Your task to perform on an android device: delete a single message in the gmail app Image 0: 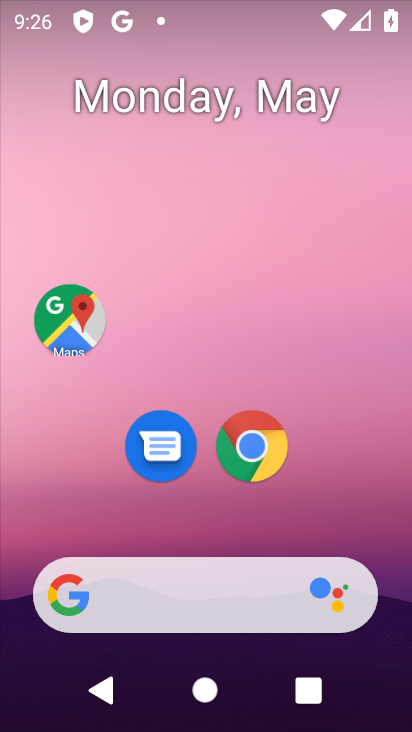
Step 0: drag from (49, 556) to (160, 102)
Your task to perform on an android device: delete a single message in the gmail app Image 1: 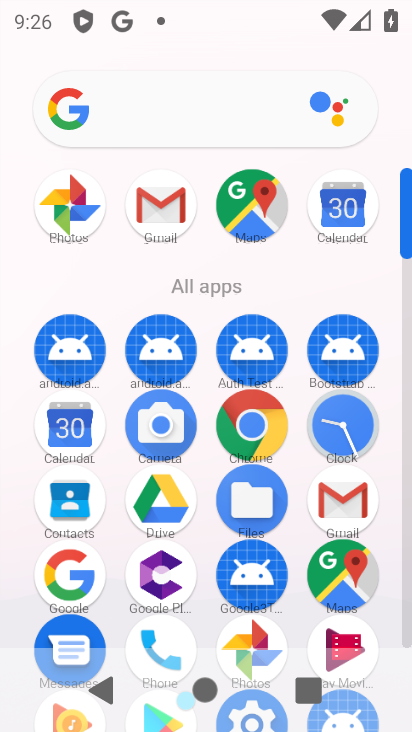
Step 1: click (340, 498)
Your task to perform on an android device: delete a single message in the gmail app Image 2: 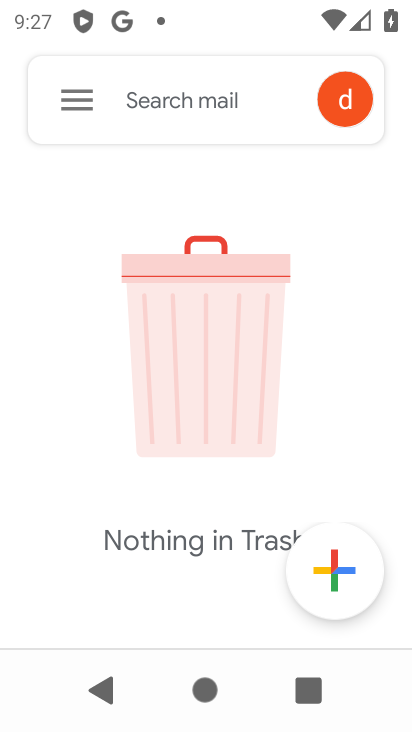
Step 2: click (88, 109)
Your task to perform on an android device: delete a single message in the gmail app Image 3: 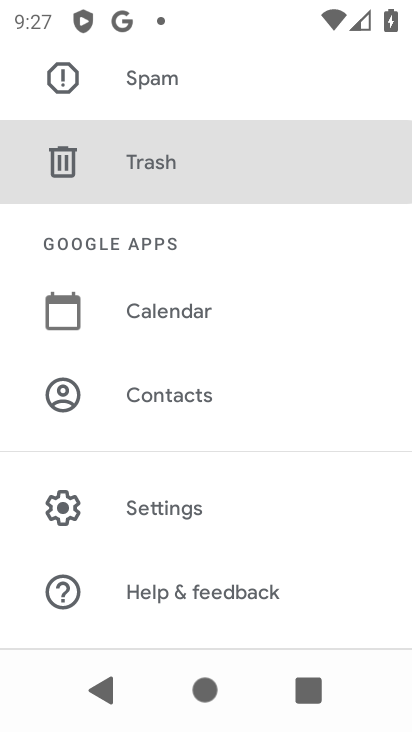
Step 3: drag from (165, 577) to (220, 550)
Your task to perform on an android device: delete a single message in the gmail app Image 4: 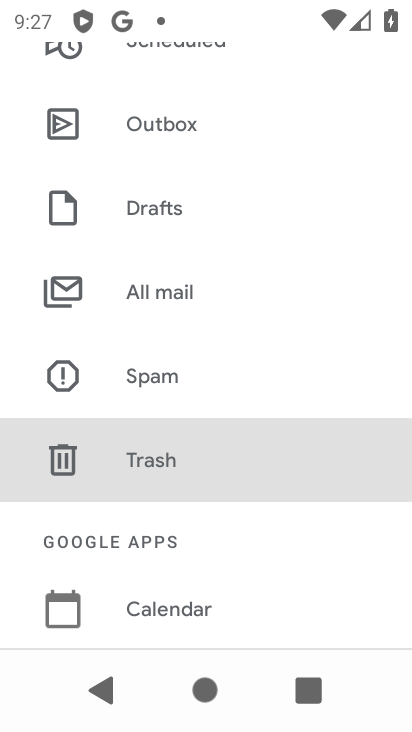
Step 4: click (200, 292)
Your task to perform on an android device: delete a single message in the gmail app Image 5: 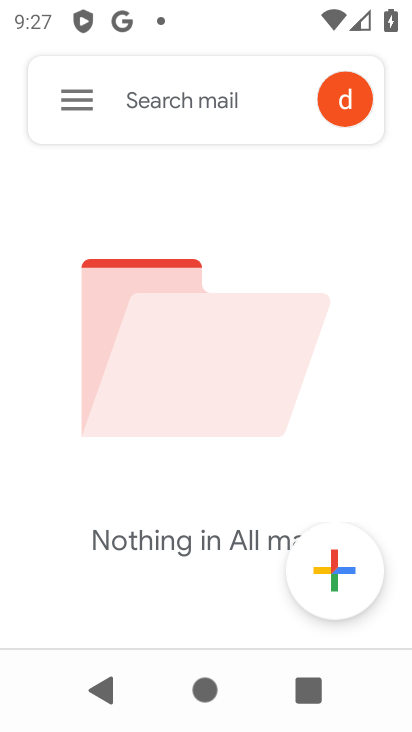
Step 5: task complete